Your task to perform on an android device: Open the stopwatch Image 0: 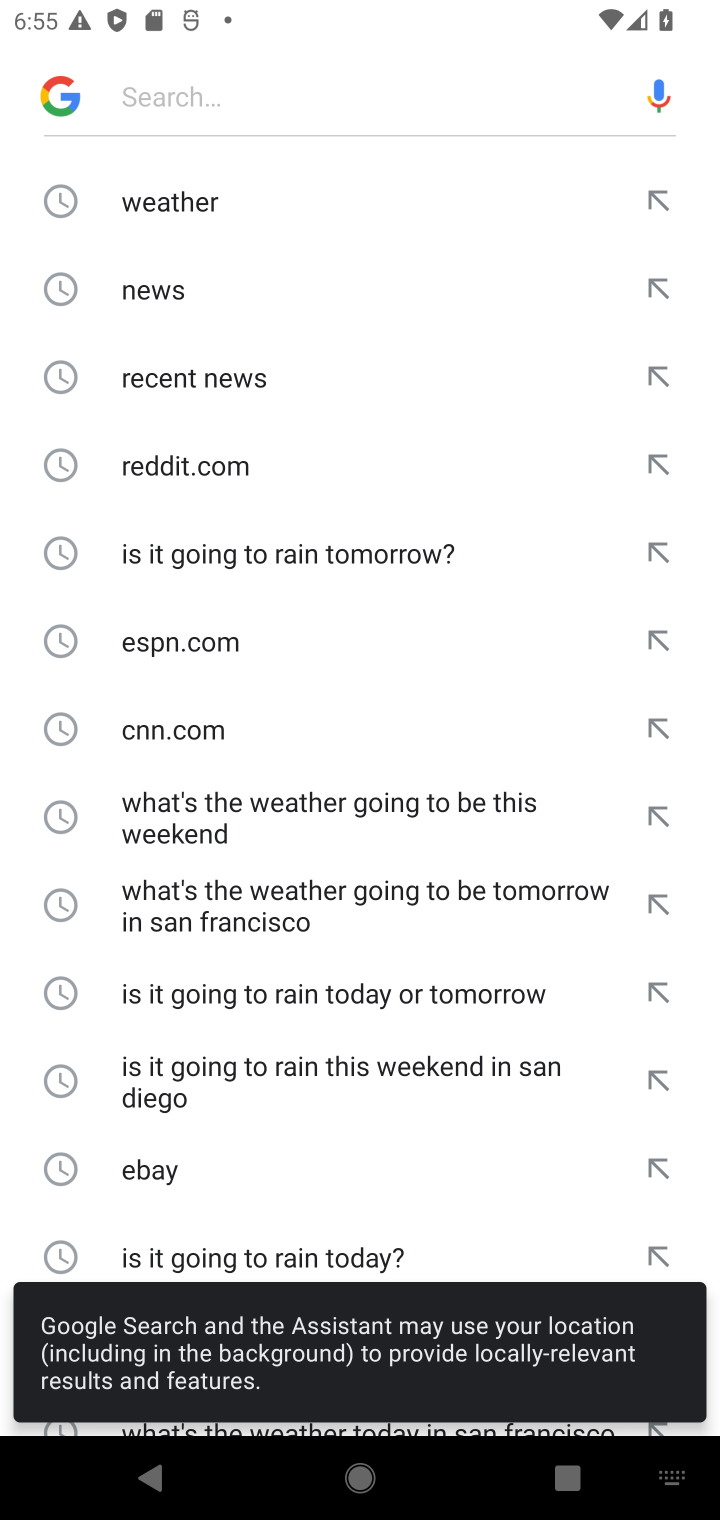
Step 0: press home button
Your task to perform on an android device: Open the stopwatch Image 1: 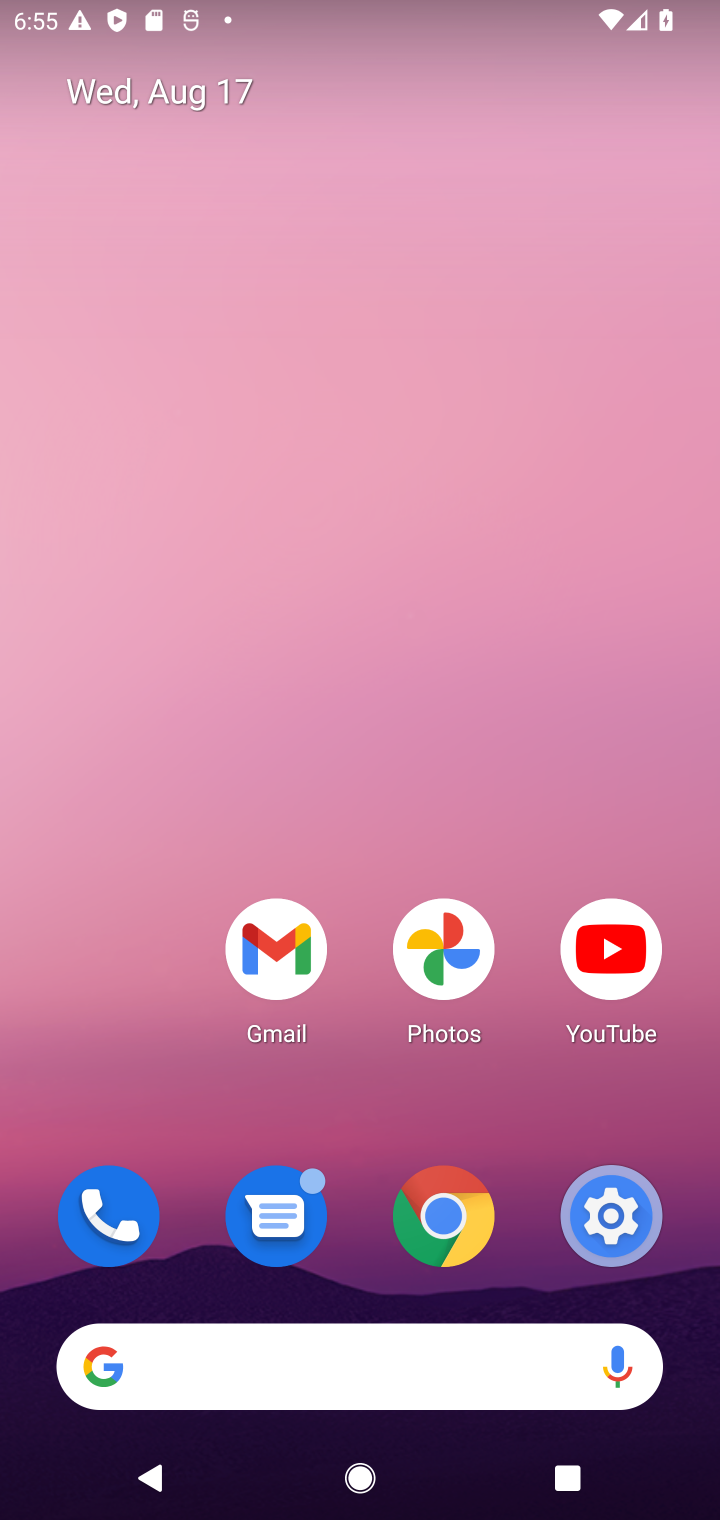
Step 1: drag from (578, 984) to (482, 35)
Your task to perform on an android device: Open the stopwatch Image 2: 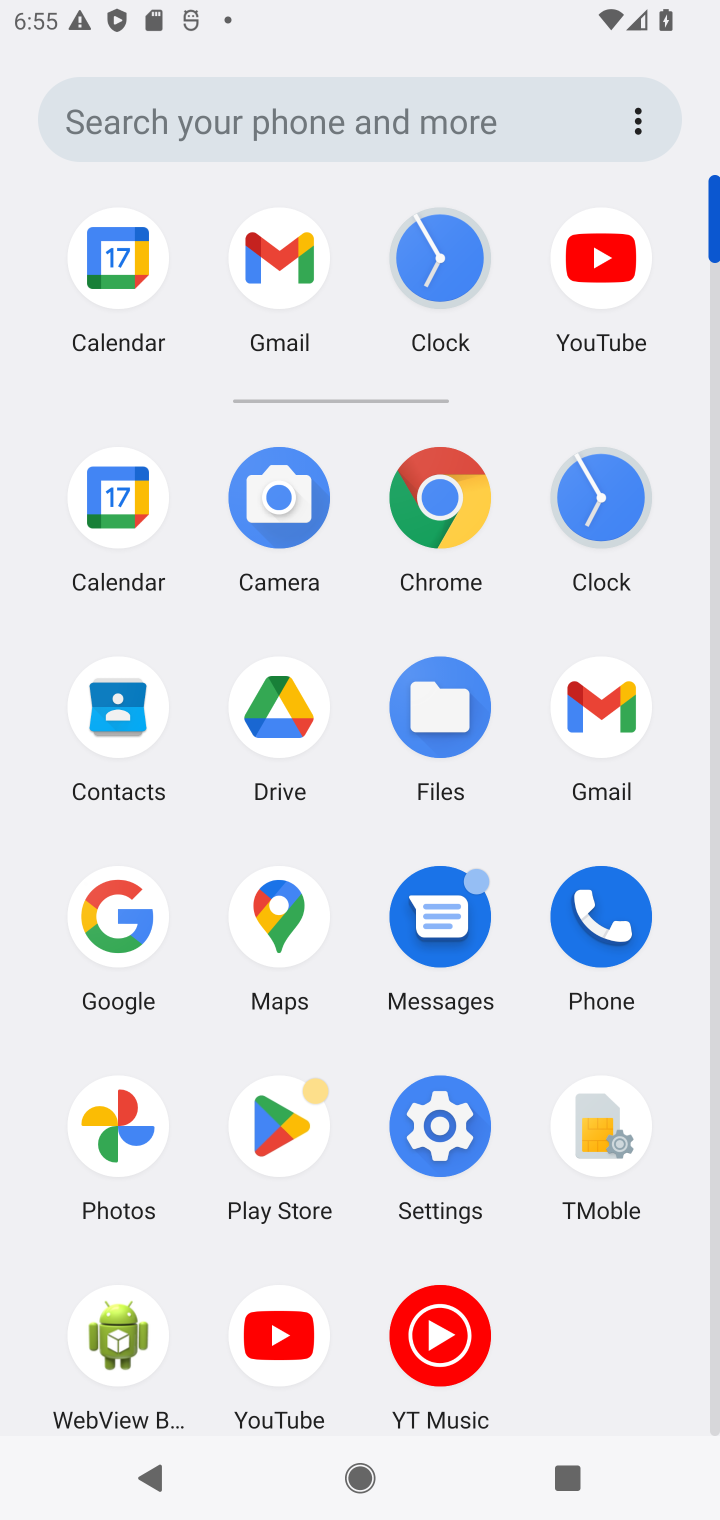
Step 2: click (435, 258)
Your task to perform on an android device: Open the stopwatch Image 3: 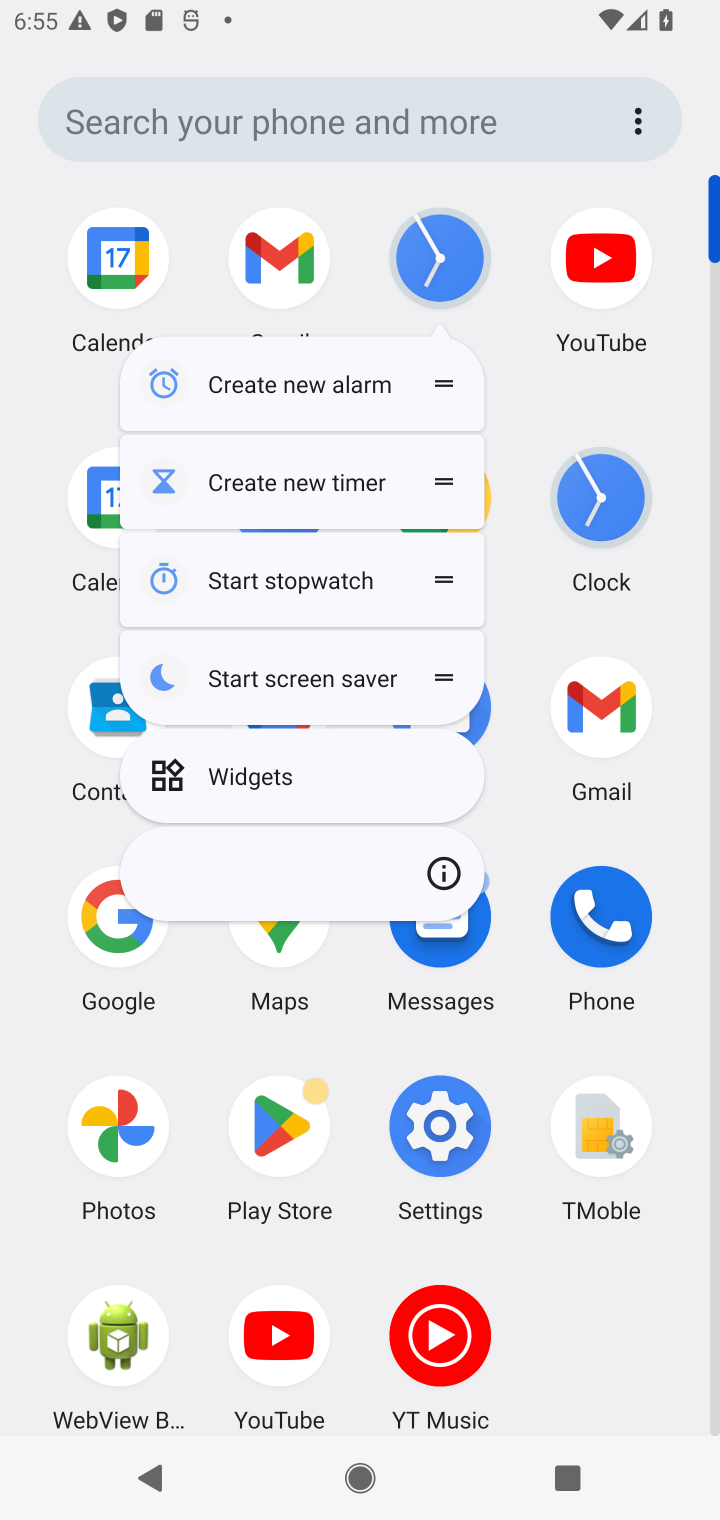
Step 3: click (614, 517)
Your task to perform on an android device: Open the stopwatch Image 4: 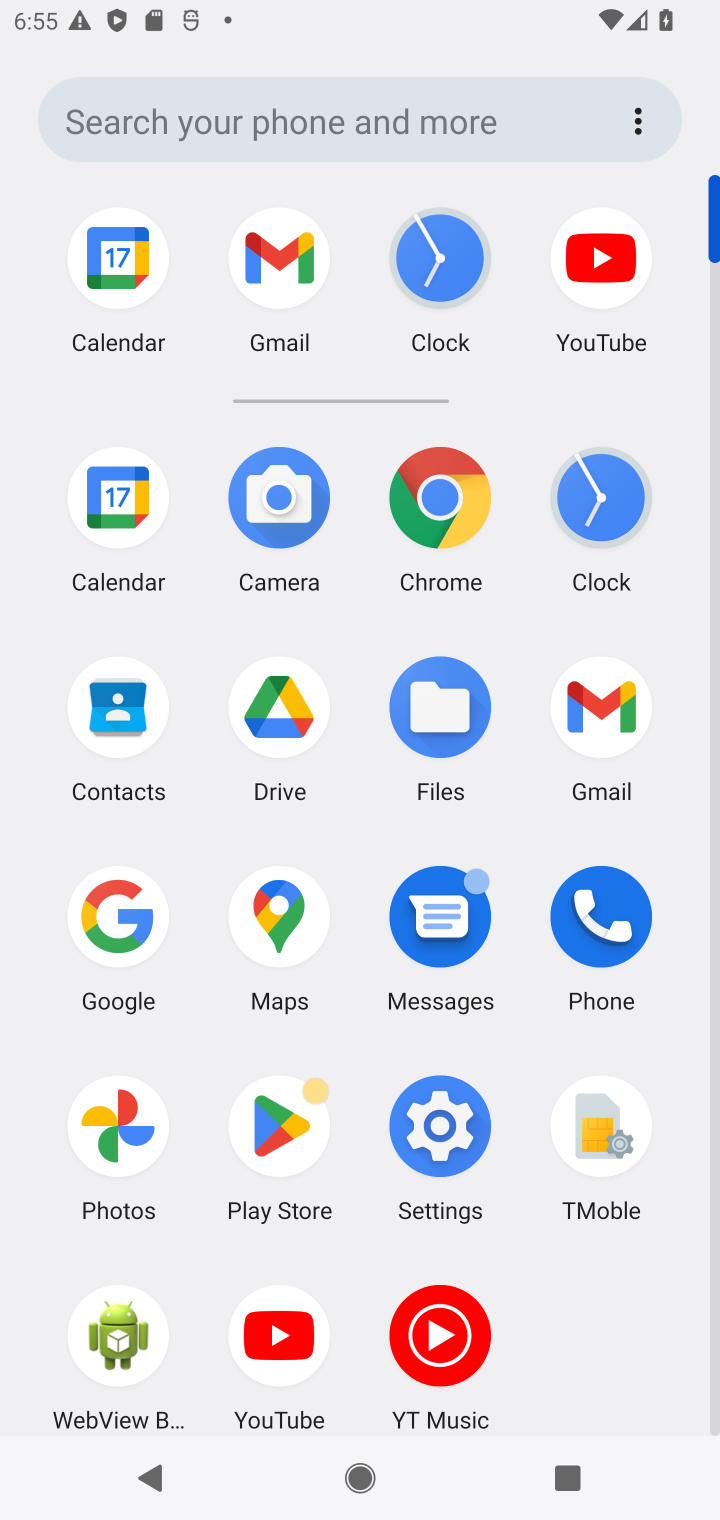
Step 4: click (608, 504)
Your task to perform on an android device: Open the stopwatch Image 5: 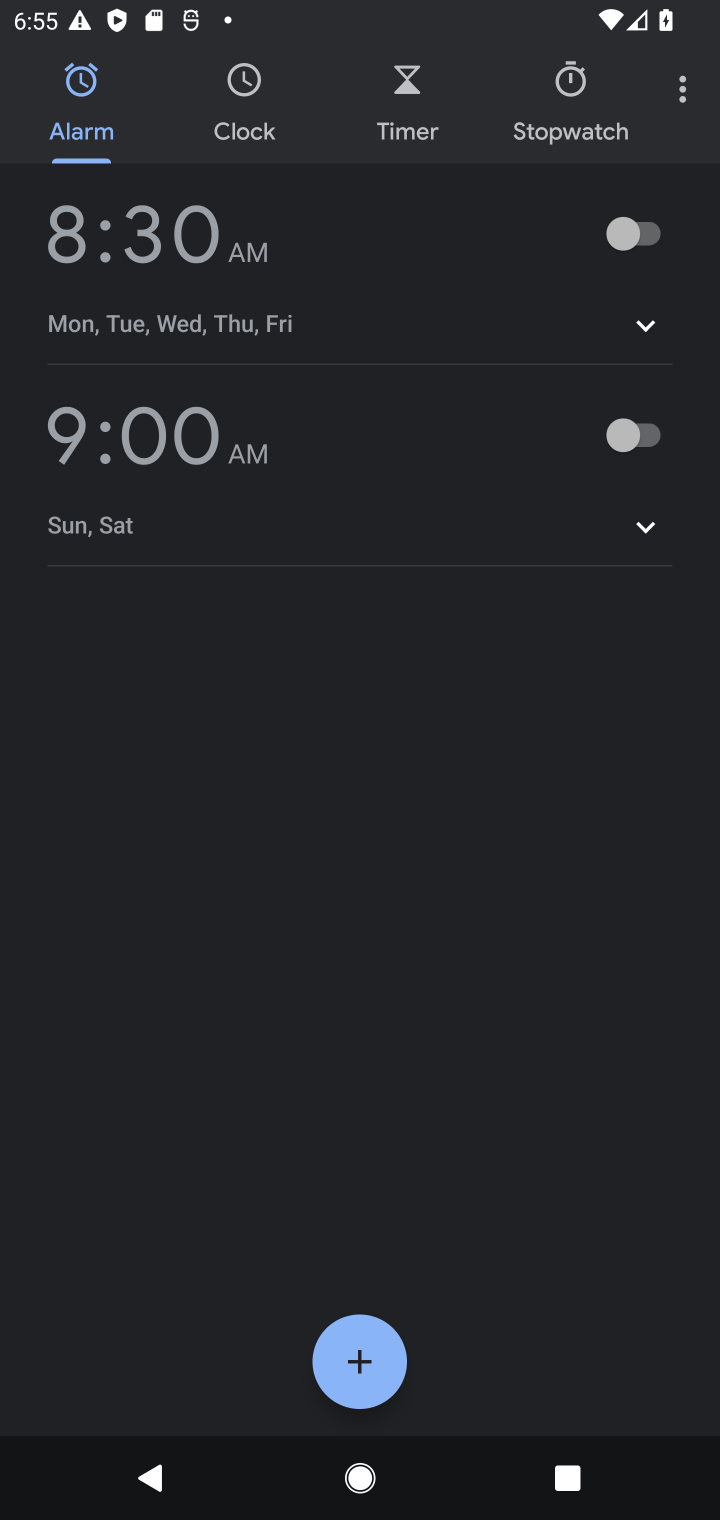
Step 5: click (570, 120)
Your task to perform on an android device: Open the stopwatch Image 6: 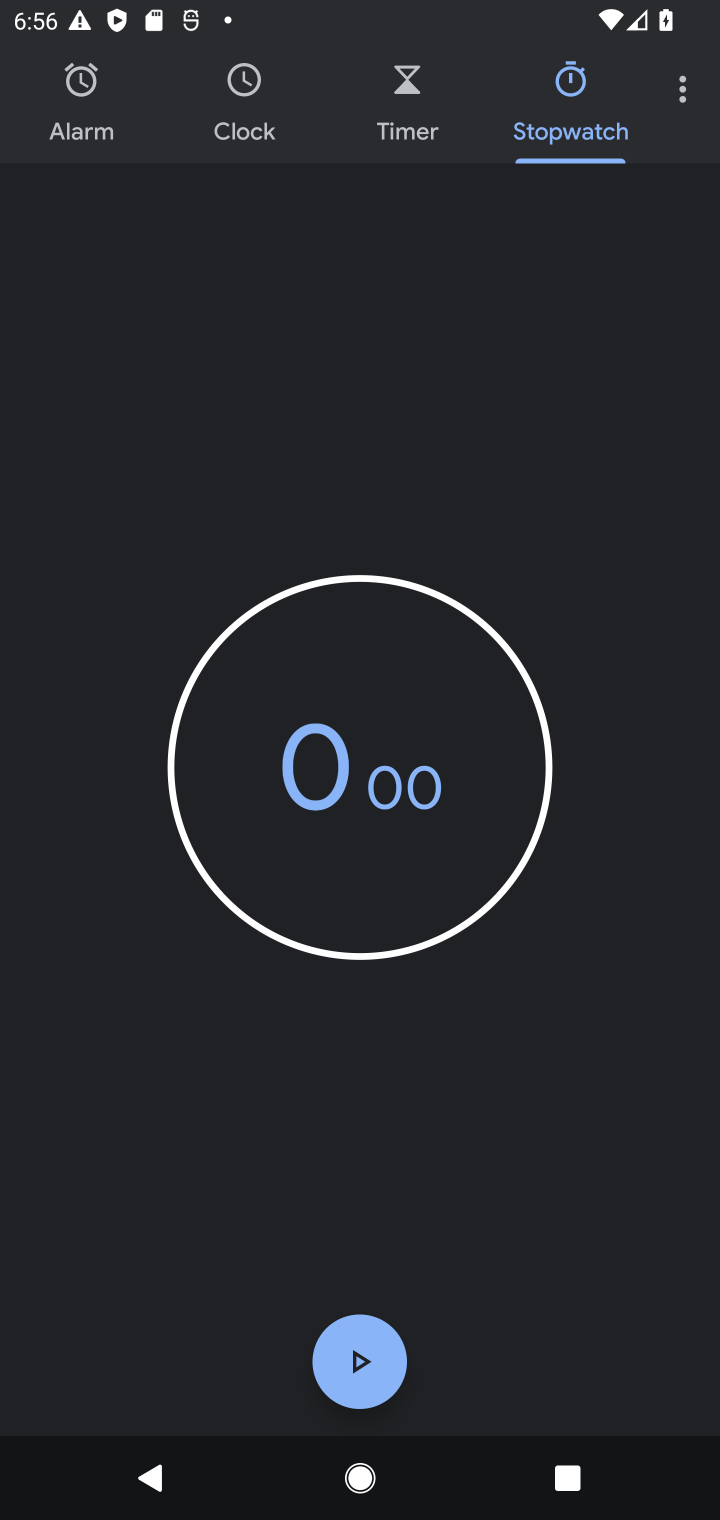
Step 6: click (346, 1348)
Your task to perform on an android device: Open the stopwatch Image 7: 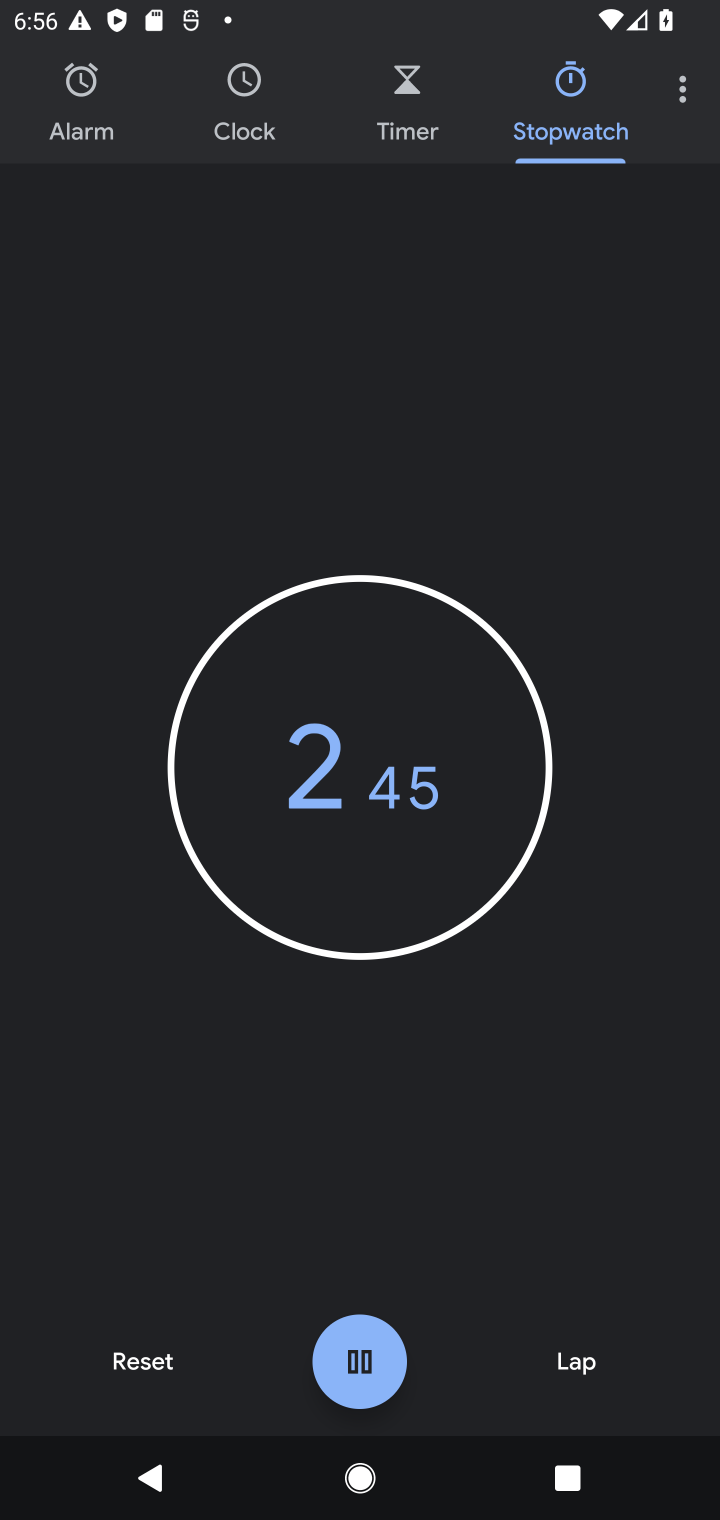
Step 7: task complete